Your task to perform on an android device: check data usage Image 0: 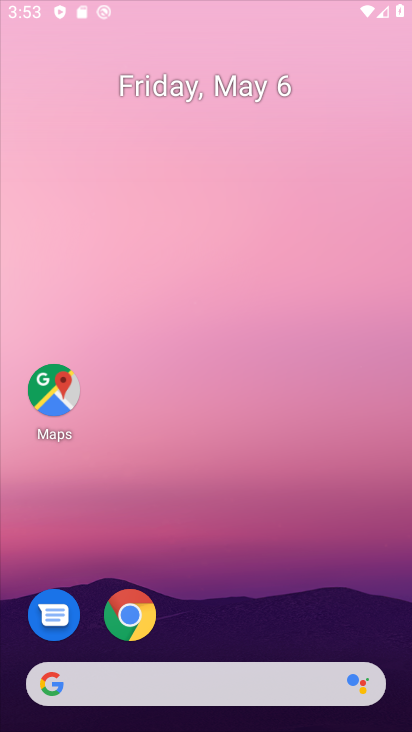
Step 0: click (220, 1)
Your task to perform on an android device: check data usage Image 1: 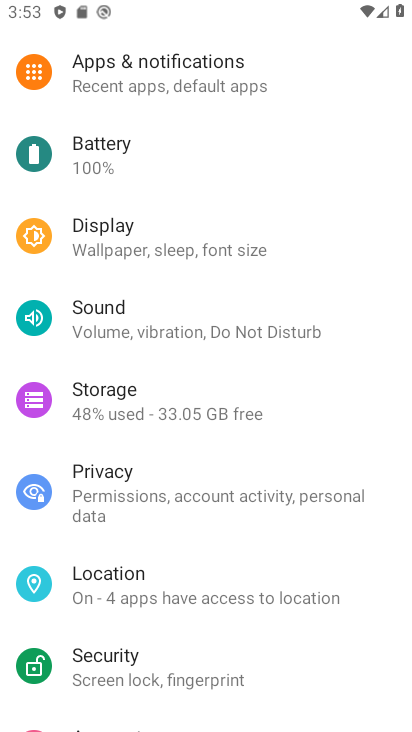
Step 1: press home button
Your task to perform on an android device: check data usage Image 2: 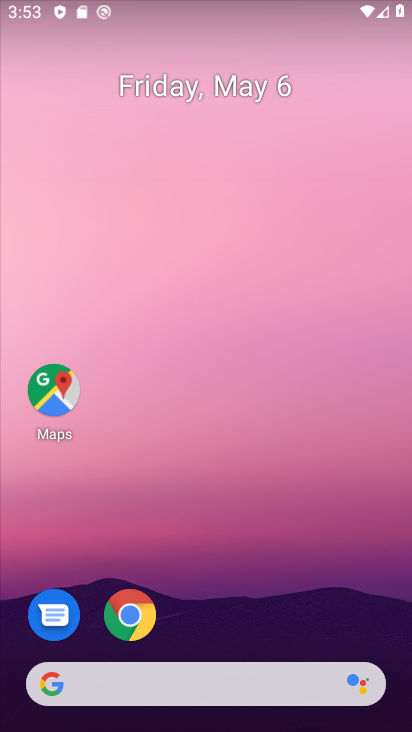
Step 2: drag from (209, 649) to (156, 58)
Your task to perform on an android device: check data usage Image 3: 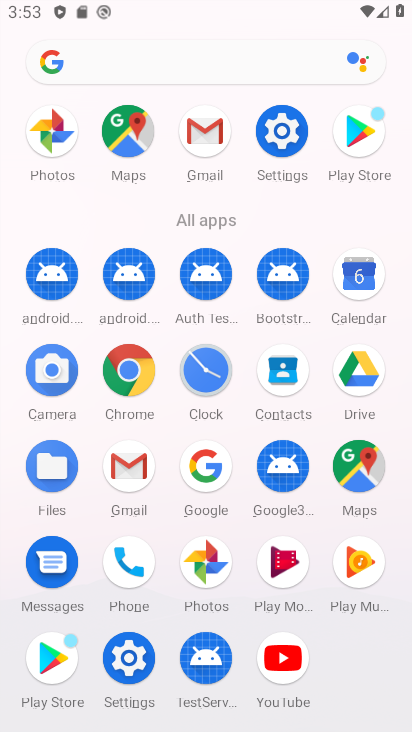
Step 3: click (194, 354)
Your task to perform on an android device: check data usage Image 4: 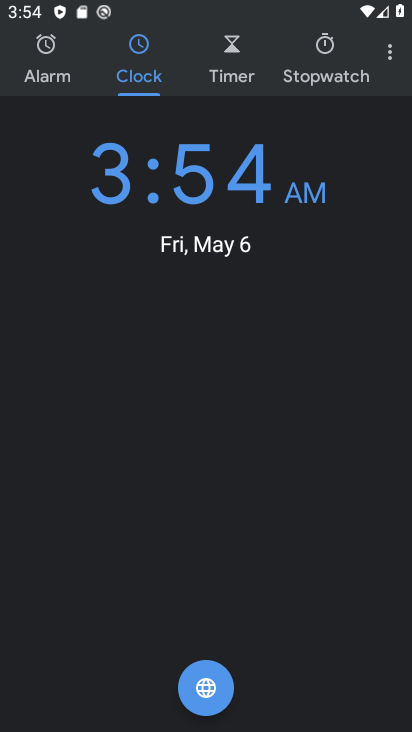
Step 4: press home button
Your task to perform on an android device: check data usage Image 5: 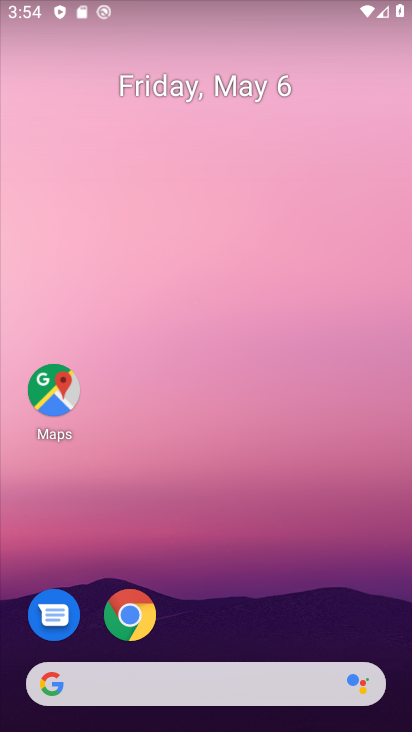
Step 5: drag from (224, 664) to (276, 35)
Your task to perform on an android device: check data usage Image 6: 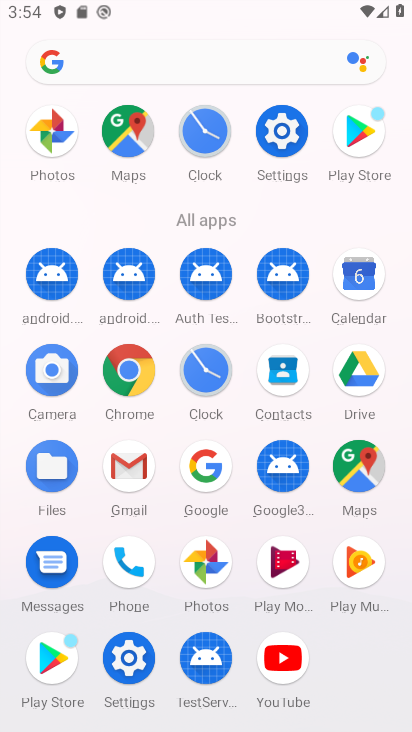
Step 6: click (279, 146)
Your task to perform on an android device: check data usage Image 7: 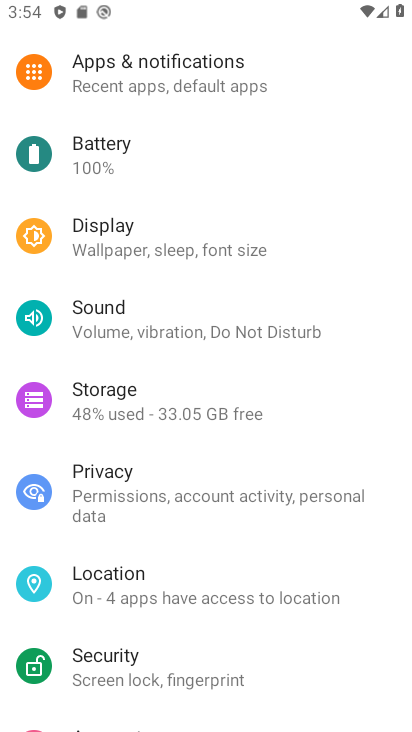
Step 7: drag from (227, 228) to (230, 614)
Your task to perform on an android device: check data usage Image 8: 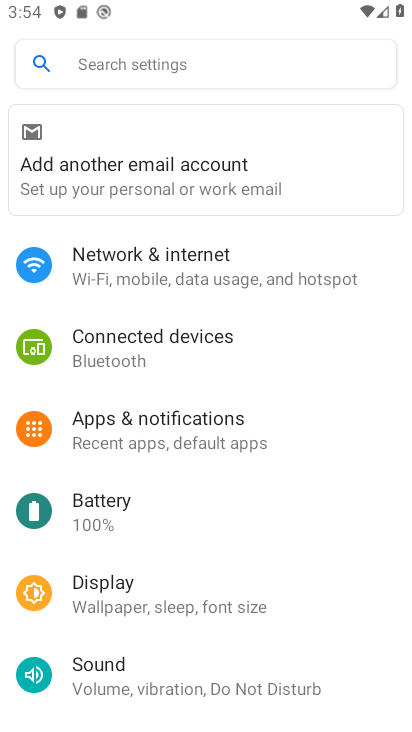
Step 8: click (157, 288)
Your task to perform on an android device: check data usage Image 9: 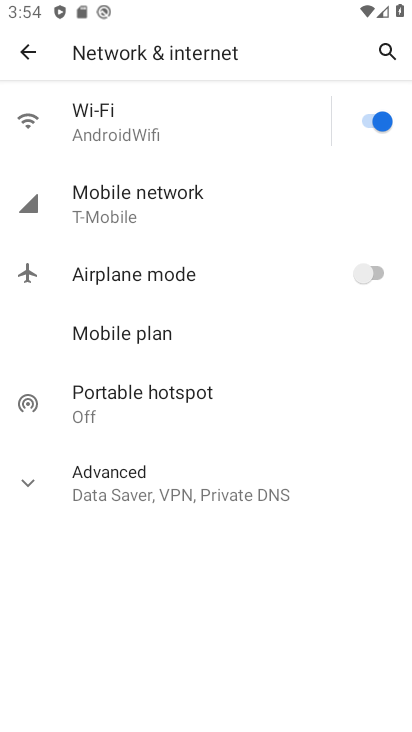
Step 9: click (111, 209)
Your task to perform on an android device: check data usage Image 10: 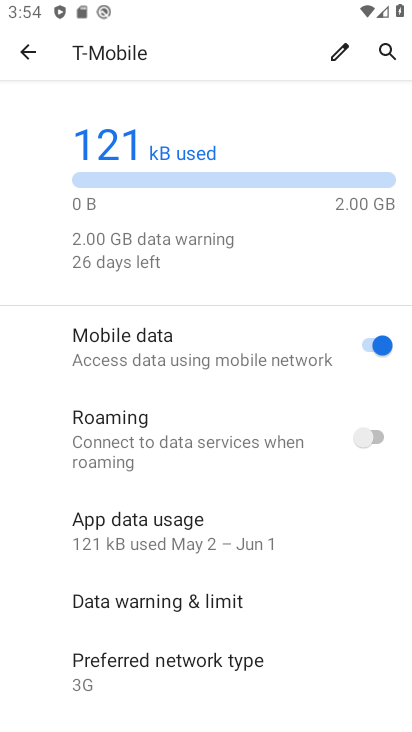
Step 10: task complete